Your task to perform on an android device: clear history in the chrome app Image 0: 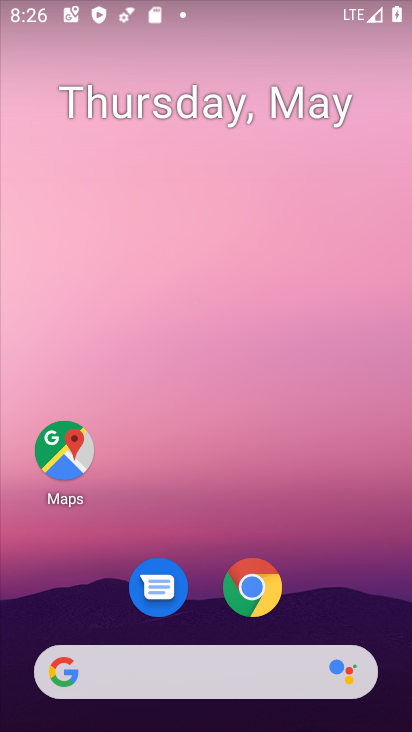
Step 0: click (264, 601)
Your task to perform on an android device: clear history in the chrome app Image 1: 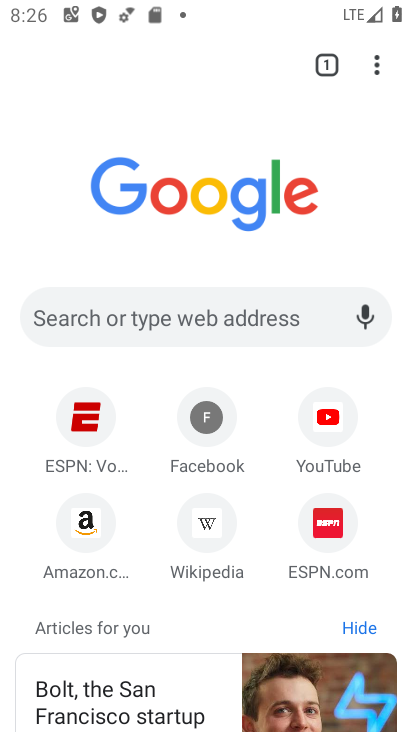
Step 1: click (380, 67)
Your task to perform on an android device: clear history in the chrome app Image 2: 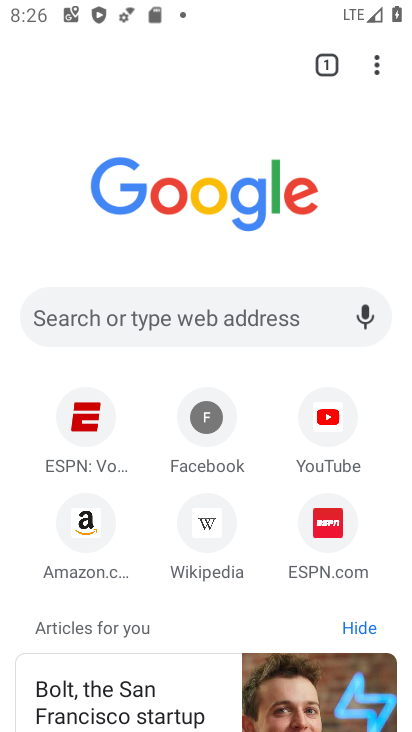
Step 2: click (377, 69)
Your task to perform on an android device: clear history in the chrome app Image 3: 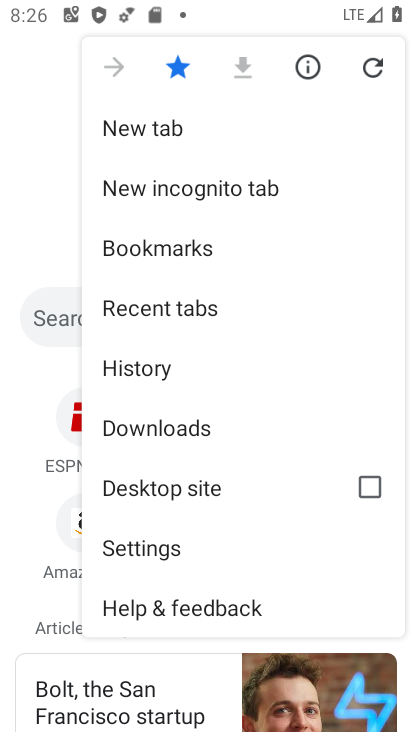
Step 3: click (158, 371)
Your task to perform on an android device: clear history in the chrome app Image 4: 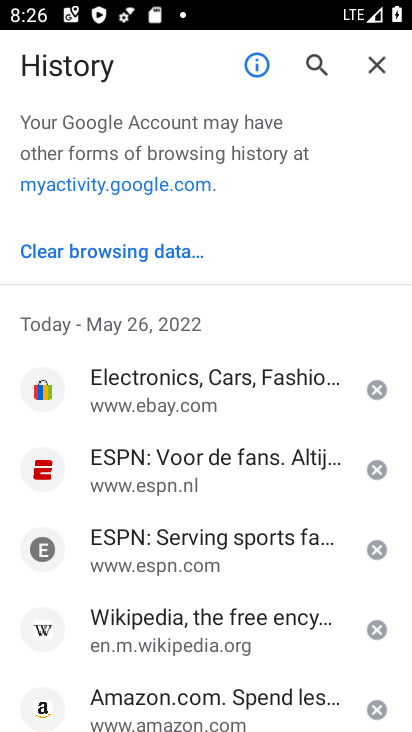
Step 4: click (97, 254)
Your task to perform on an android device: clear history in the chrome app Image 5: 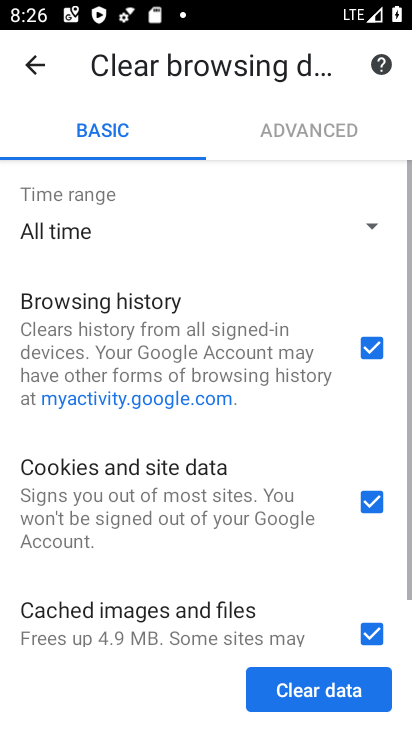
Step 5: click (372, 627)
Your task to perform on an android device: clear history in the chrome app Image 6: 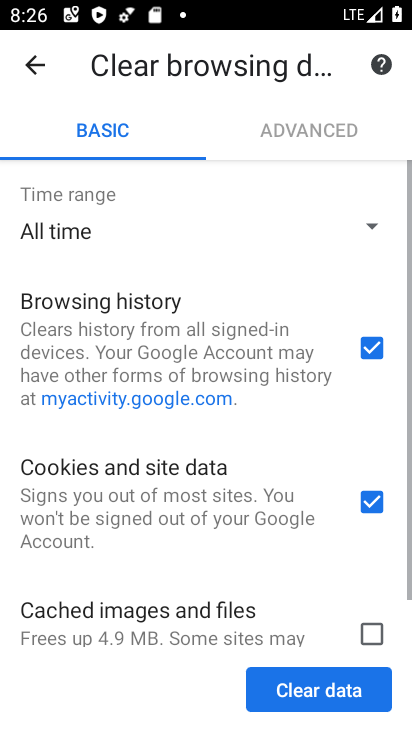
Step 6: click (371, 502)
Your task to perform on an android device: clear history in the chrome app Image 7: 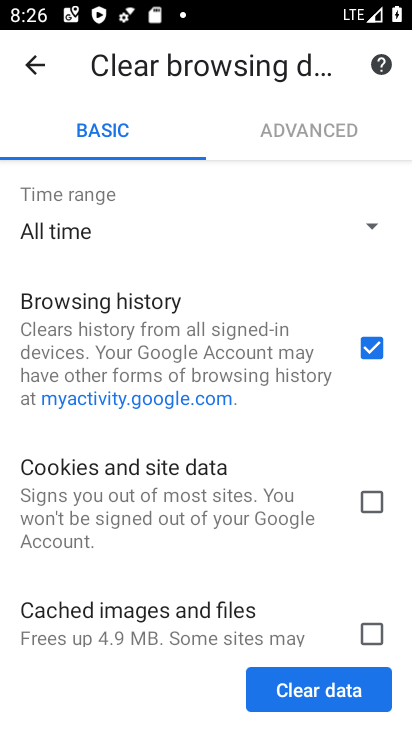
Step 7: click (299, 696)
Your task to perform on an android device: clear history in the chrome app Image 8: 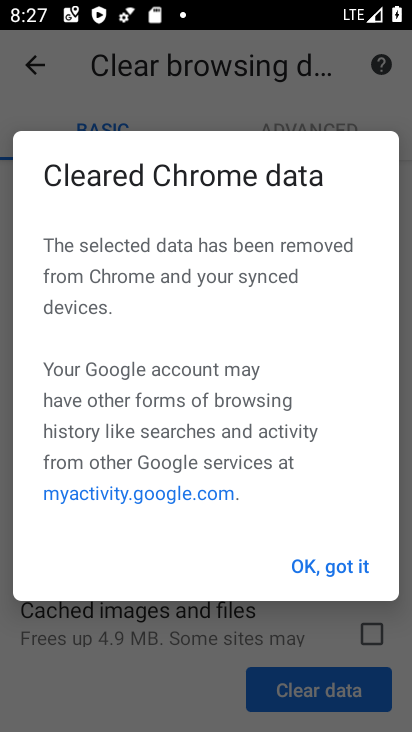
Step 8: click (309, 579)
Your task to perform on an android device: clear history in the chrome app Image 9: 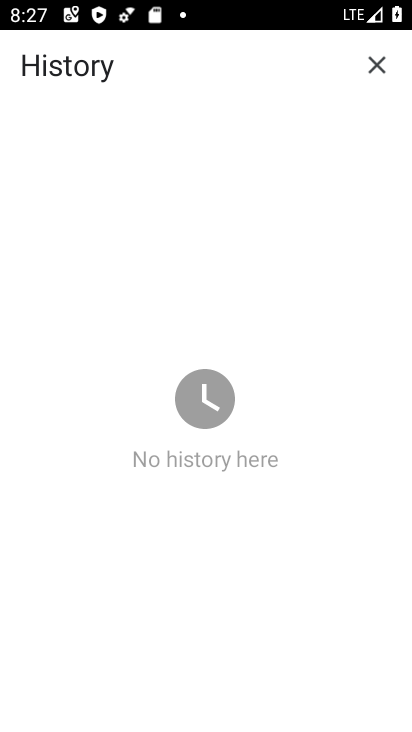
Step 9: task complete